Your task to perform on an android device: What's the weather today? Image 0: 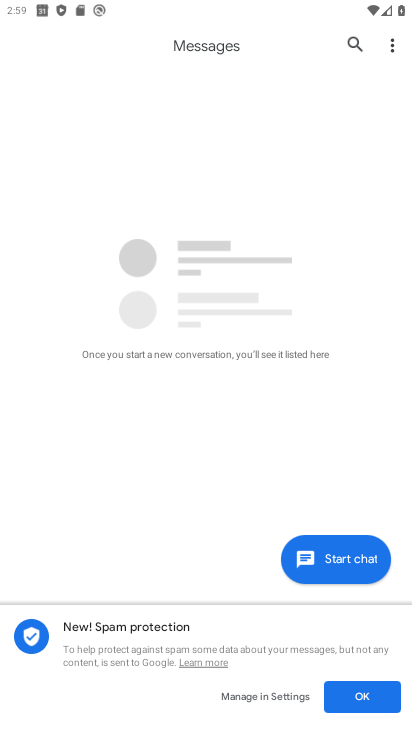
Step 0: press home button
Your task to perform on an android device: What's the weather today? Image 1: 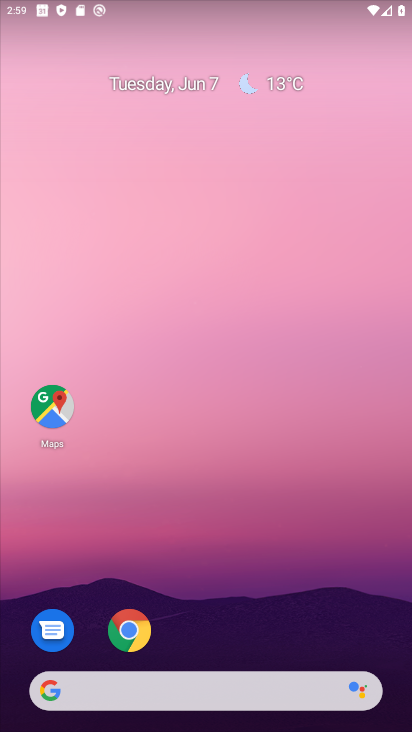
Step 1: drag from (205, 687) to (246, 229)
Your task to perform on an android device: What's the weather today? Image 2: 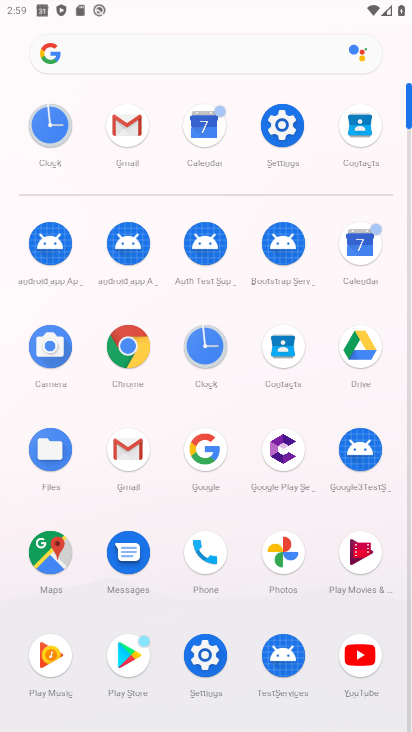
Step 2: click (194, 465)
Your task to perform on an android device: What's the weather today? Image 3: 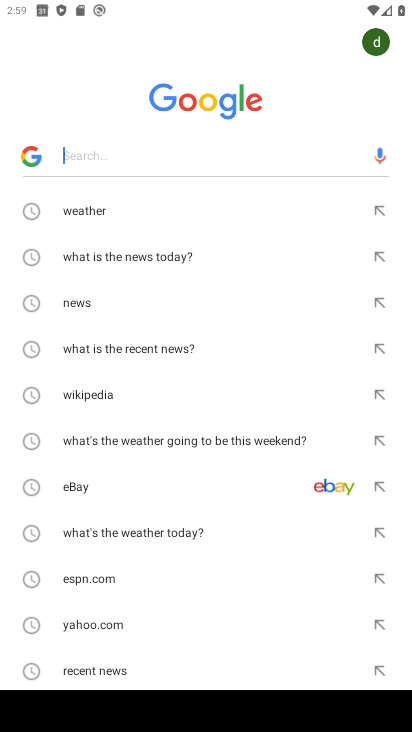
Step 3: click (111, 228)
Your task to perform on an android device: What's the weather today? Image 4: 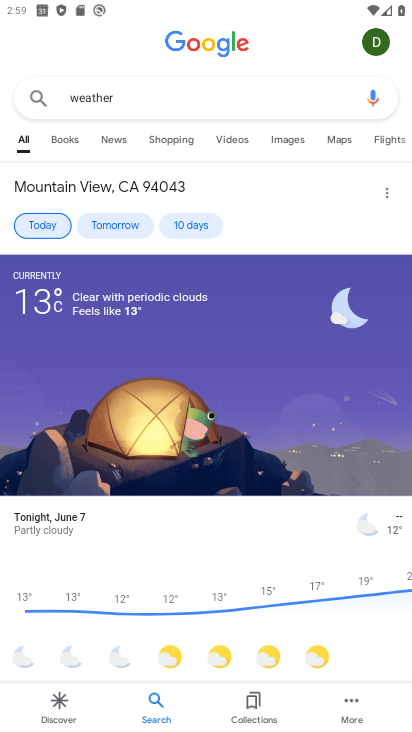
Step 4: task complete